Your task to perform on an android device: When is my next appointment? Image 0: 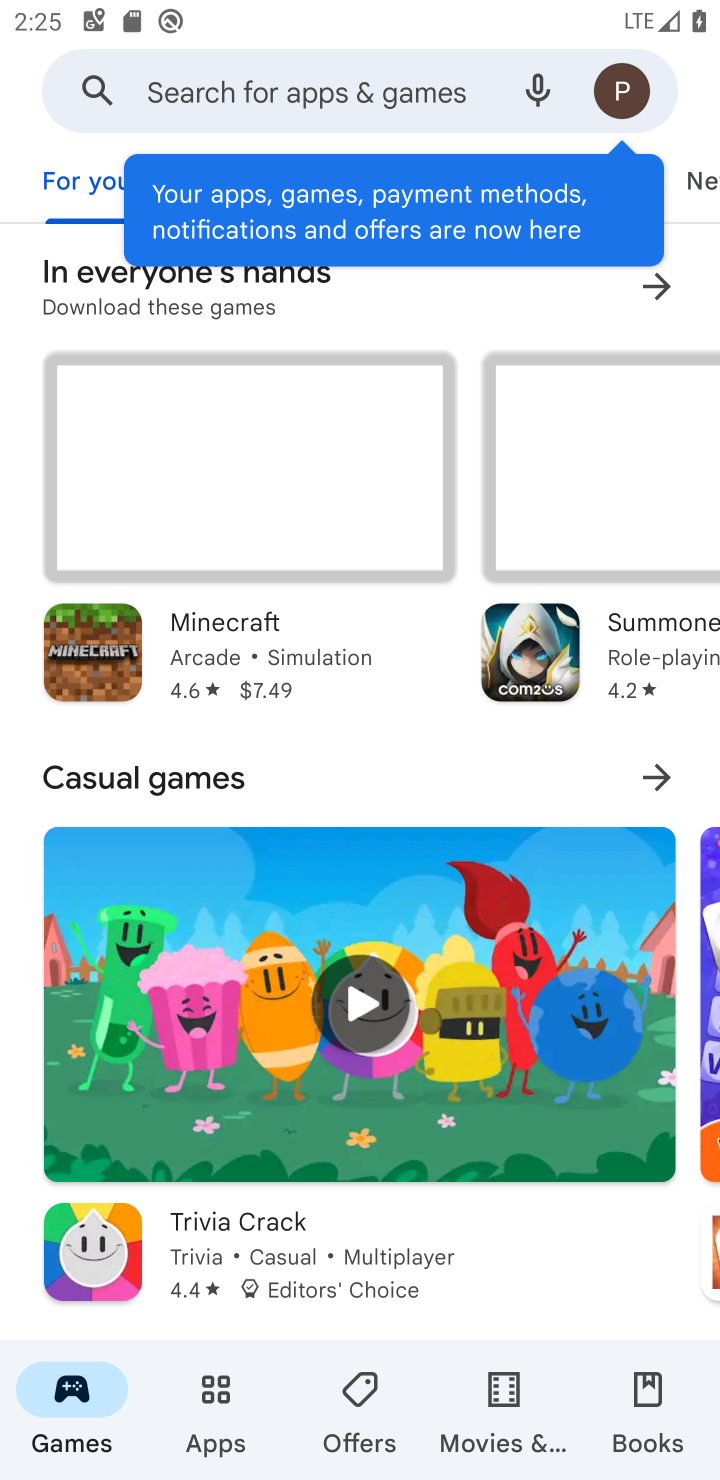
Step 0: press home button
Your task to perform on an android device: When is my next appointment? Image 1: 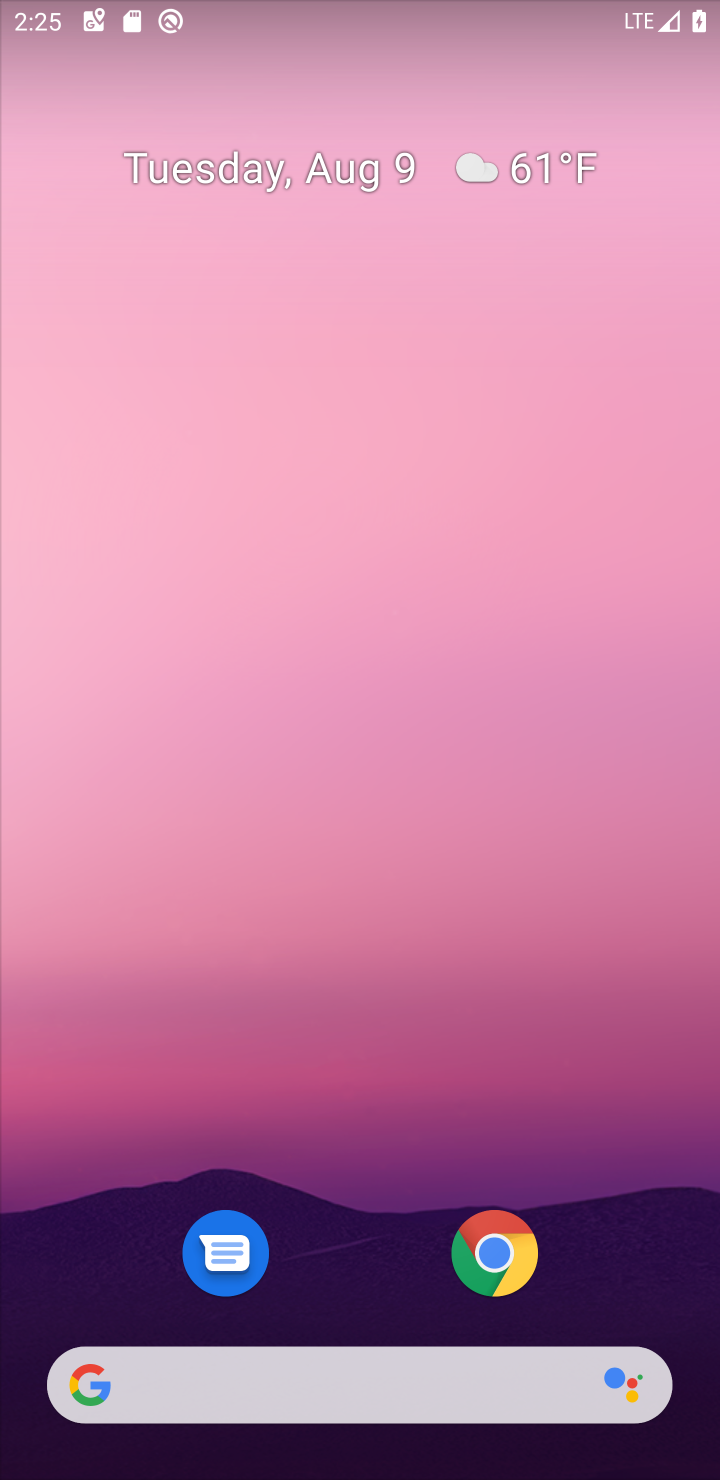
Step 1: drag from (576, 892) to (268, 44)
Your task to perform on an android device: When is my next appointment? Image 2: 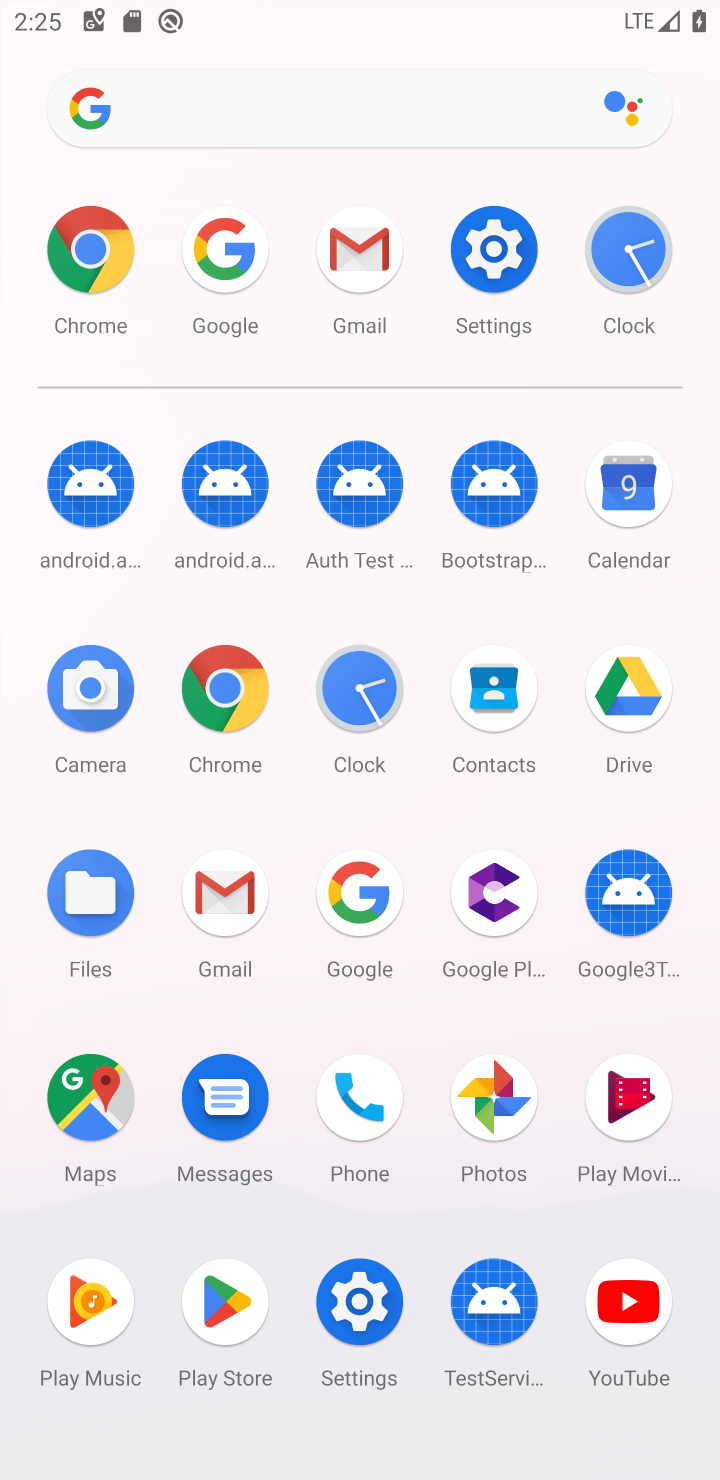
Step 2: click (609, 517)
Your task to perform on an android device: When is my next appointment? Image 3: 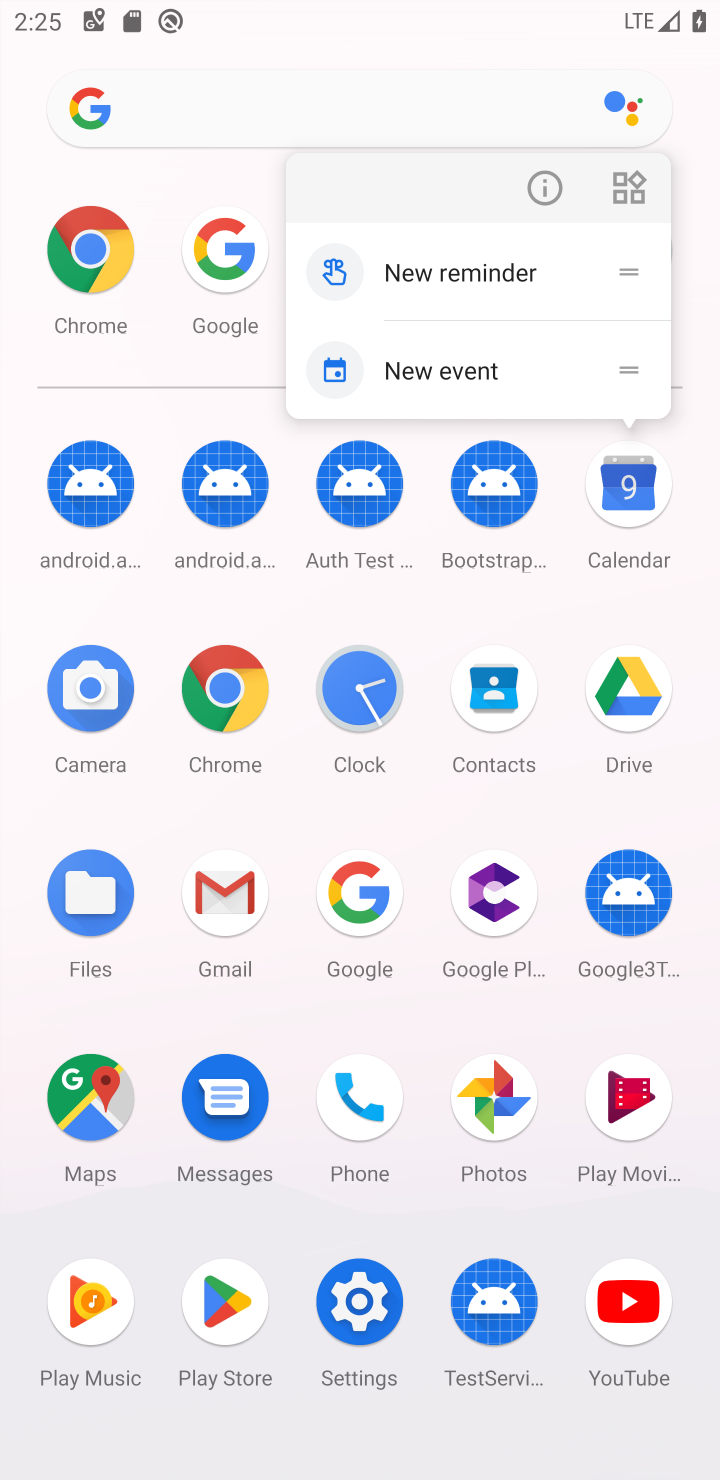
Step 3: click (609, 517)
Your task to perform on an android device: When is my next appointment? Image 4: 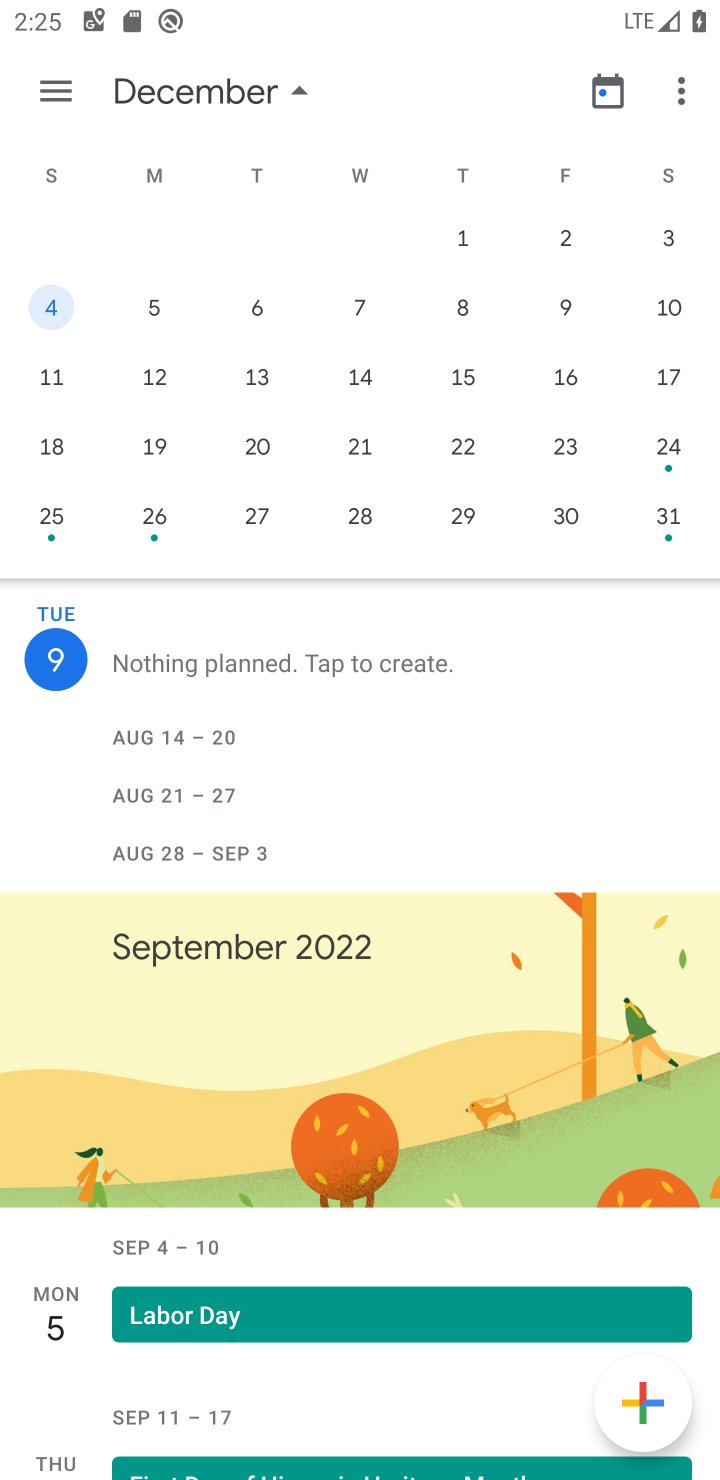
Step 4: task complete